Your task to perform on an android device: turn on the 12-hour format for clock Image 0: 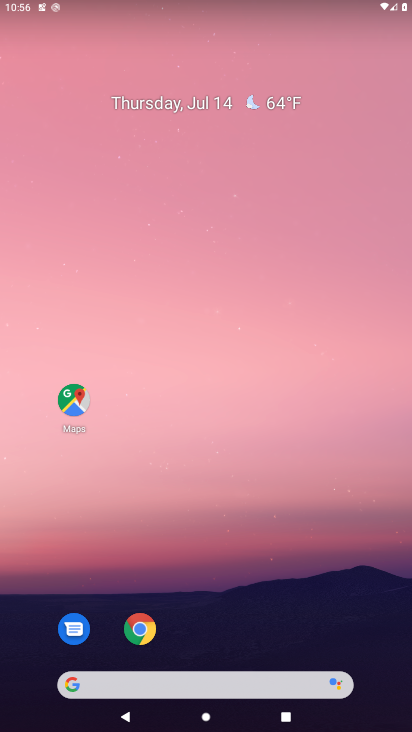
Step 0: drag from (232, 667) to (257, 217)
Your task to perform on an android device: turn on the 12-hour format for clock Image 1: 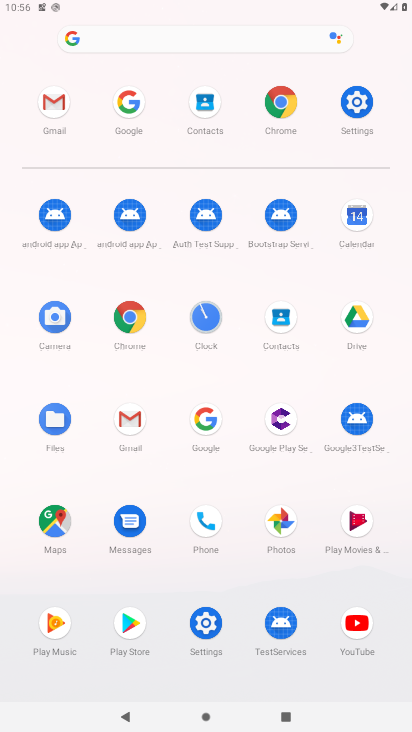
Step 1: click (209, 316)
Your task to perform on an android device: turn on the 12-hour format for clock Image 2: 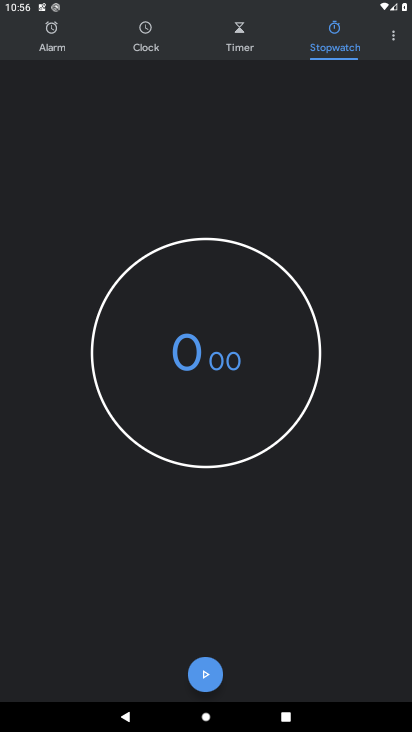
Step 2: click (395, 29)
Your task to perform on an android device: turn on the 12-hour format for clock Image 3: 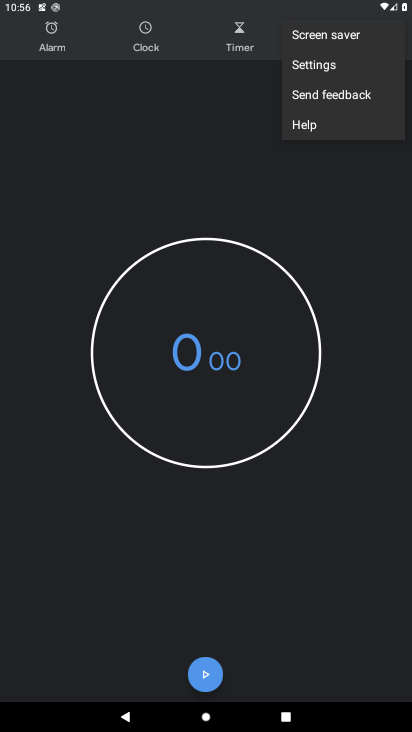
Step 3: click (319, 74)
Your task to perform on an android device: turn on the 12-hour format for clock Image 4: 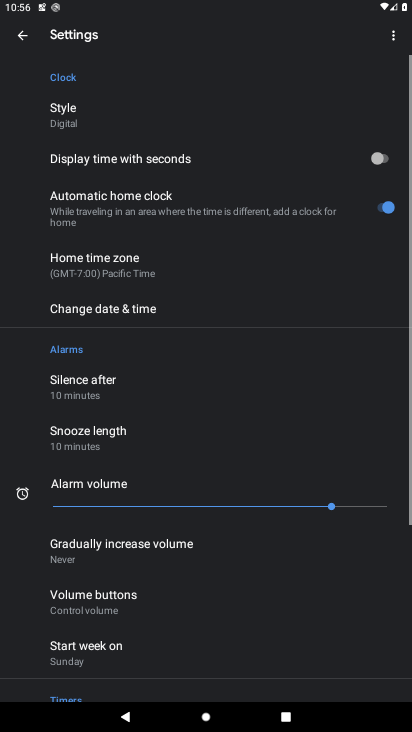
Step 4: click (123, 305)
Your task to perform on an android device: turn on the 12-hour format for clock Image 5: 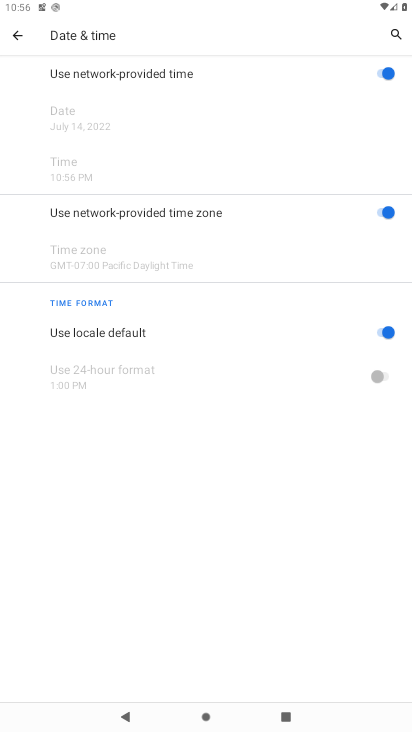
Step 5: task complete